Your task to perform on an android device: turn pop-ups off in chrome Image 0: 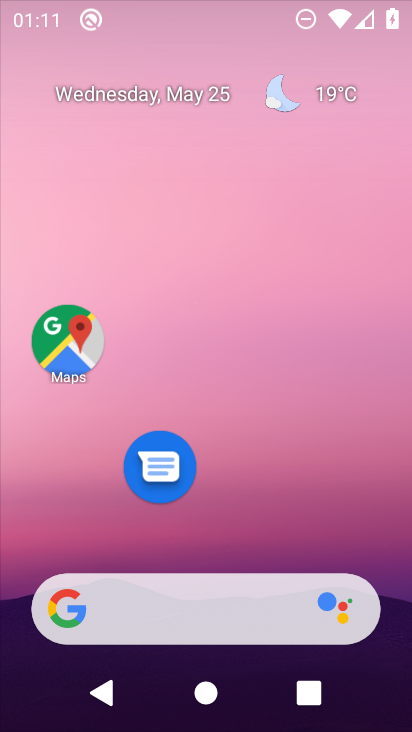
Step 0: click (395, 514)
Your task to perform on an android device: turn pop-ups off in chrome Image 1: 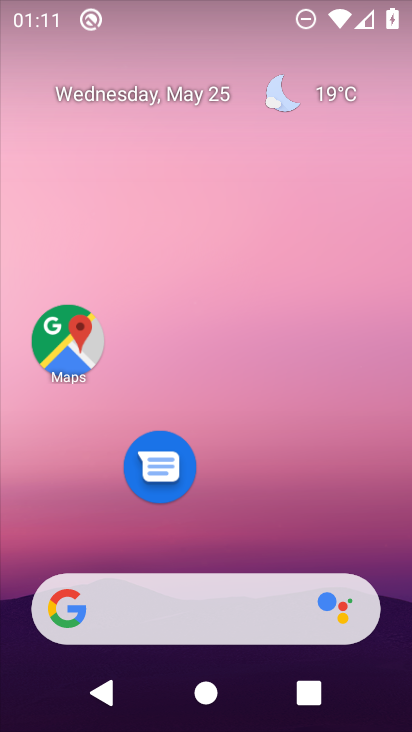
Step 1: drag from (215, 527) to (229, 61)
Your task to perform on an android device: turn pop-ups off in chrome Image 2: 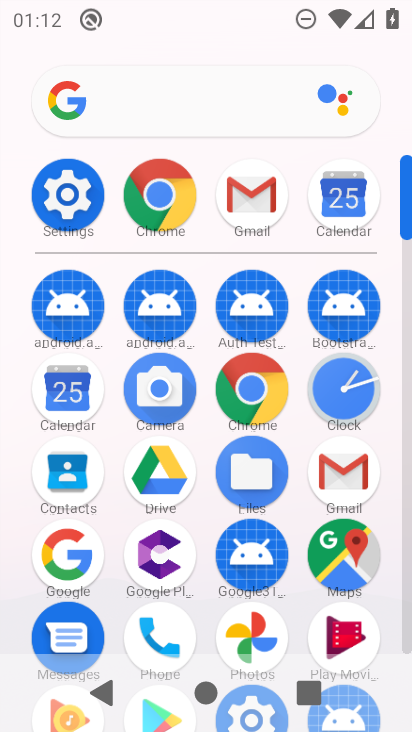
Step 2: click (246, 388)
Your task to perform on an android device: turn pop-ups off in chrome Image 3: 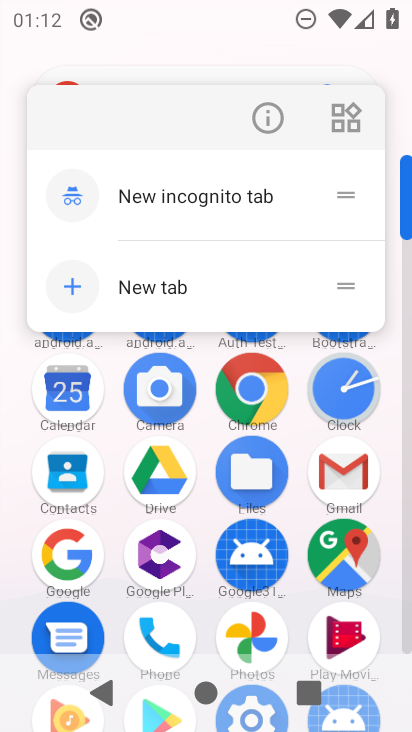
Step 3: click (259, 136)
Your task to perform on an android device: turn pop-ups off in chrome Image 4: 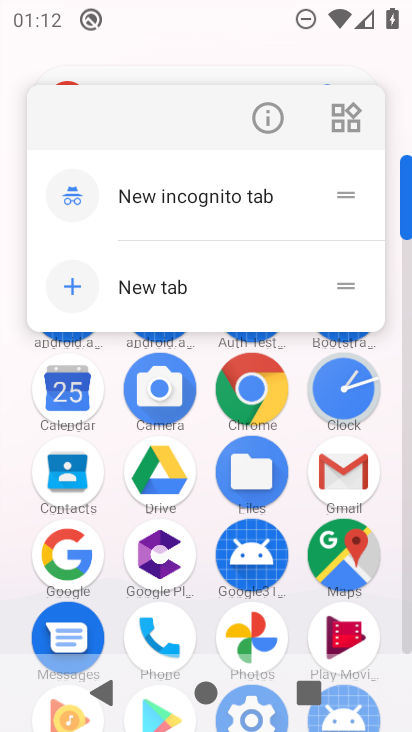
Step 4: click (261, 132)
Your task to perform on an android device: turn pop-ups off in chrome Image 5: 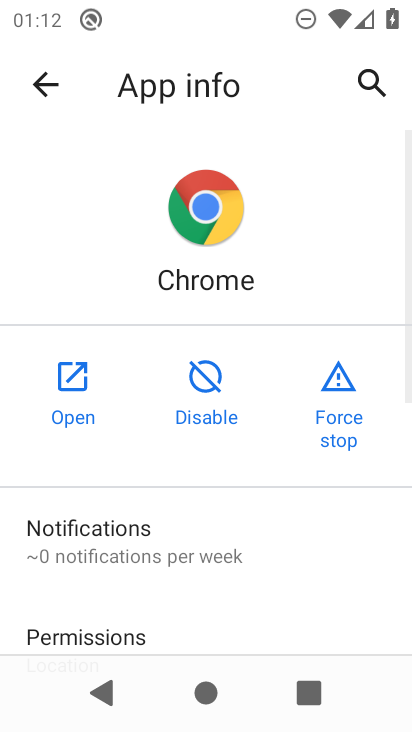
Step 5: click (81, 368)
Your task to perform on an android device: turn pop-ups off in chrome Image 6: 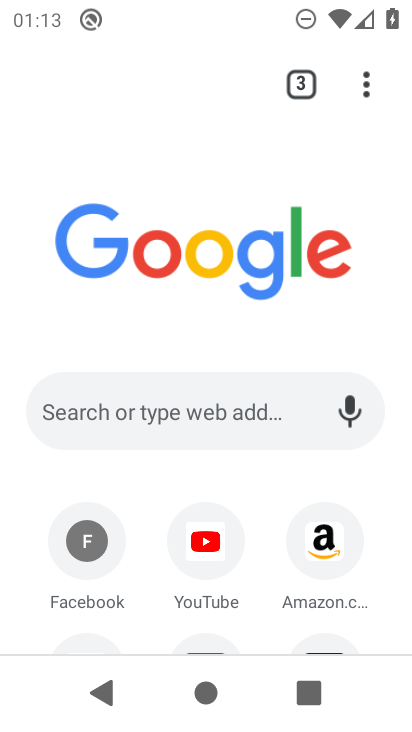
Step 6: click (366, 96)
Your task to perform on an android device: turn pop-ups off in chrome Image 7: 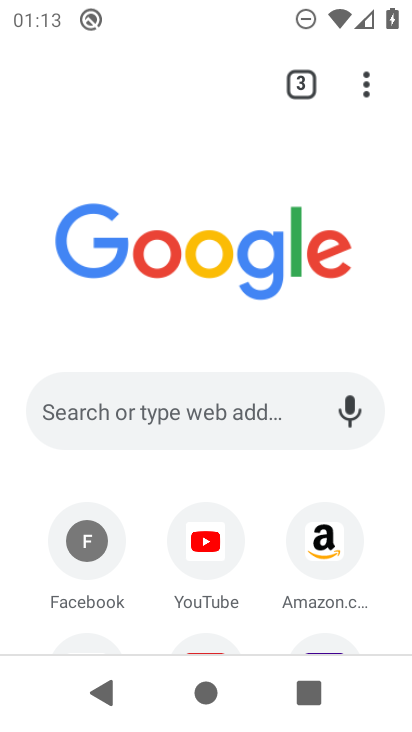
Step 7: click (385, 76)
Your task to perform on an android device: turn pop-ups off in chrome Image 8: 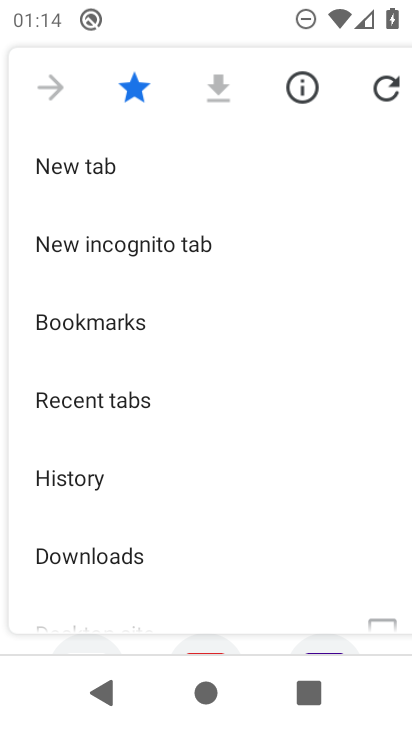
Step 8: drag from (168, 498) to (243, 8)
Your task to perform on an android device: turn pop-ups off in chrome Image 9: 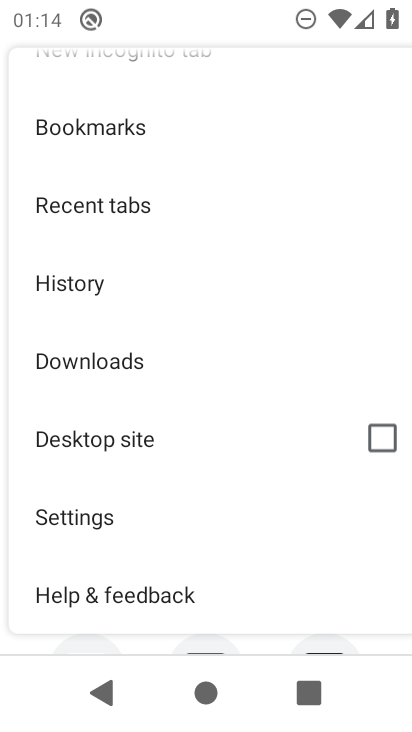
Step 9: click (103, 534)
Your task to perform on an android device: turn pop-ups off in chrome Image 10: 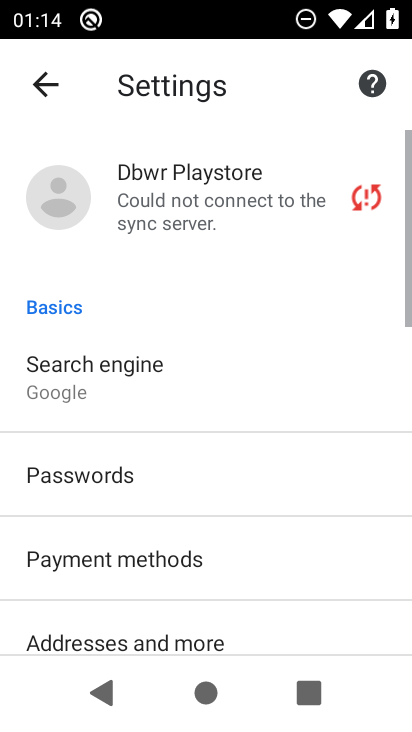
Step 10: drag from (192, 525) to (259, 114)
Your task to perform on an android device: turn pop-ups off in chrome Image 11: 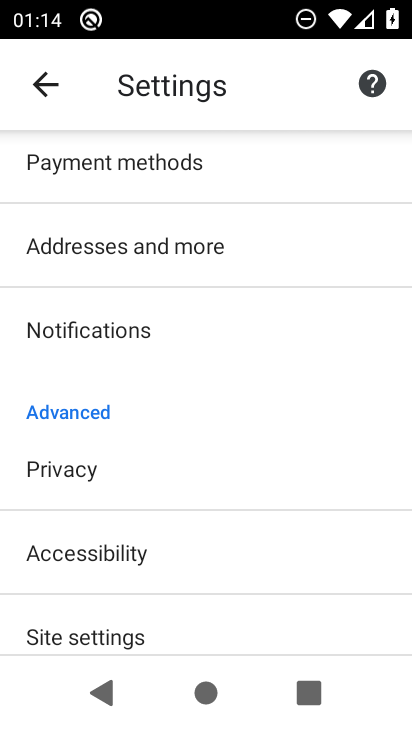
Step 11: click (152, 637)
Your task to perform on an android device: turn pop-ups off in chrome Image 12: 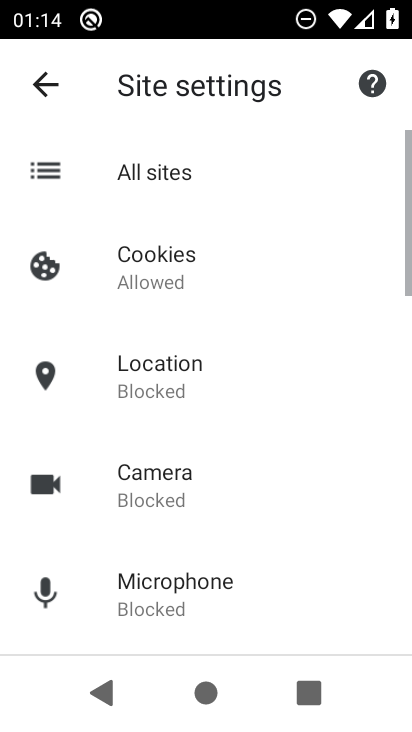
Step 12: drag from (167, 578) to (250, 269)
Your task to perform on an android device: turn pop-ups off in chrome Image 13: 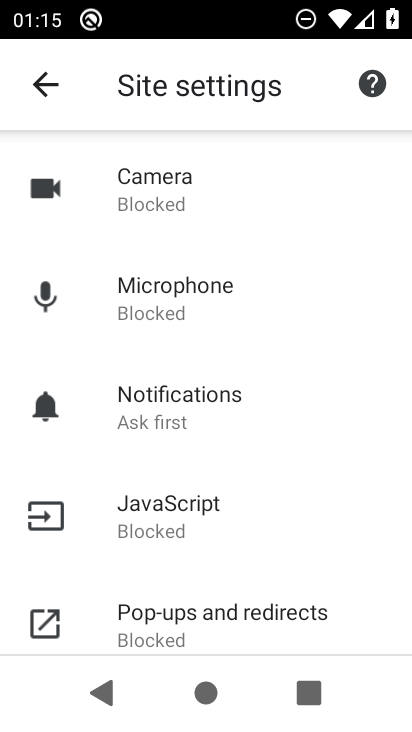
Step 13: click (232, 609)
Your task to perform on an android device: turn pop-ups off in chrome Image 14: 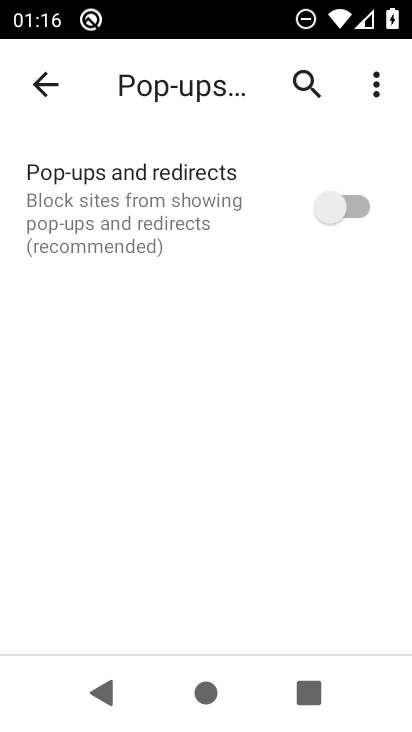
Step 14: task complete